Your task to perform on an android device: Find coffee shops on Maps Image 0: 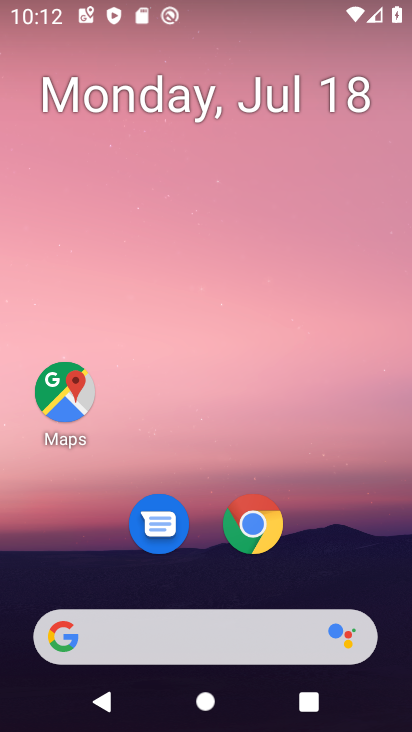
Step 0: click (65, 392)
Your task to perform on an android device: Find coffee shops on Maps Image 1: 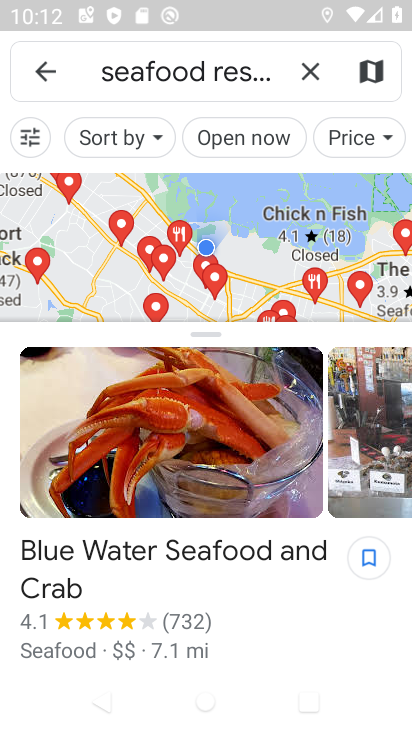
Step 1: click (309, 69)
Your task to perform on an android device: Find coffee shops on Maps Image 2: 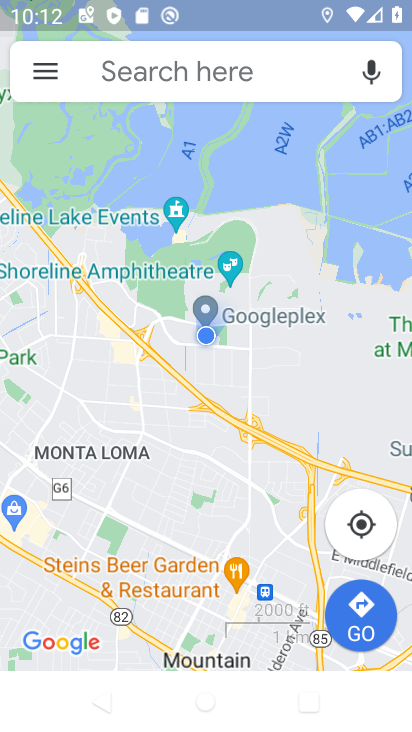
Step 2: click (254, 69)
Your task to perform on an android device: Find coffee shops on Maps Image 3: 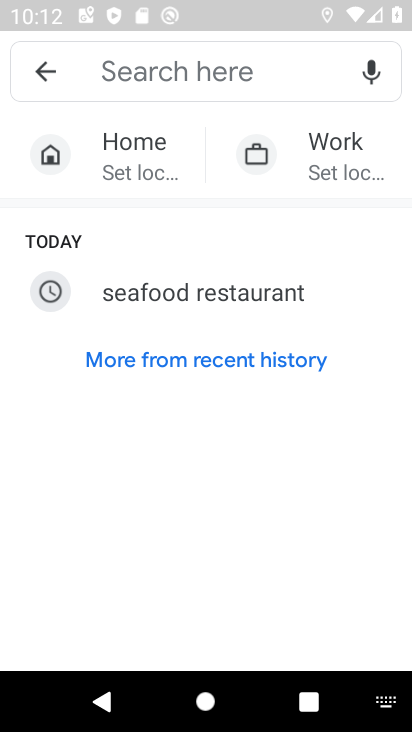
Step 3: click (215, 355)
Your task to perform on an android device: Find coffee shops on Maps Image 4: 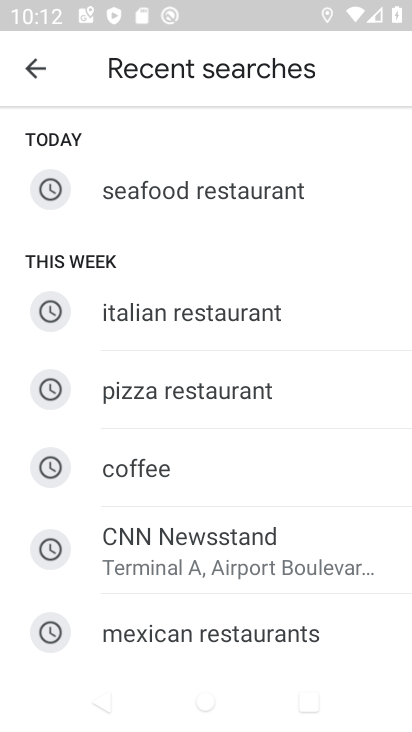
Step 4: click (156, 466)
Your task to perform on an android device: Find coffee shops on Maps Image 5: 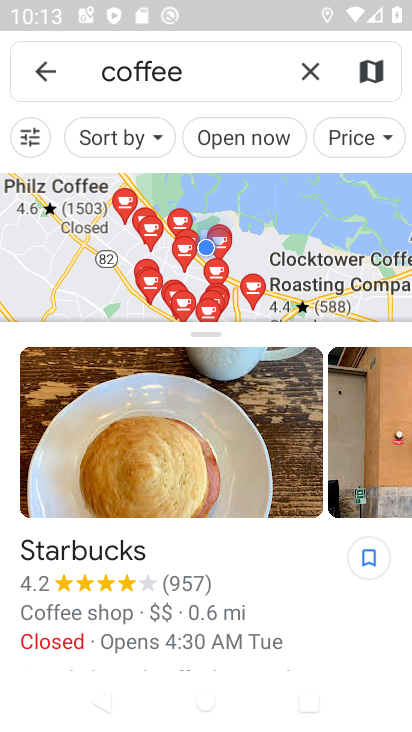
Step 5: task complete